Your task to perform on an android device: toggle show notifications on the lock screen Image 0: 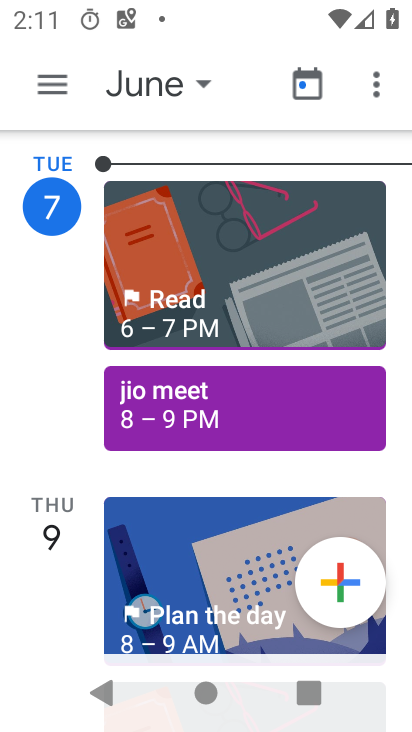
Step 0: press home button
Your task to perform on an android device: toggle show notifications on the lock screen Image 1: 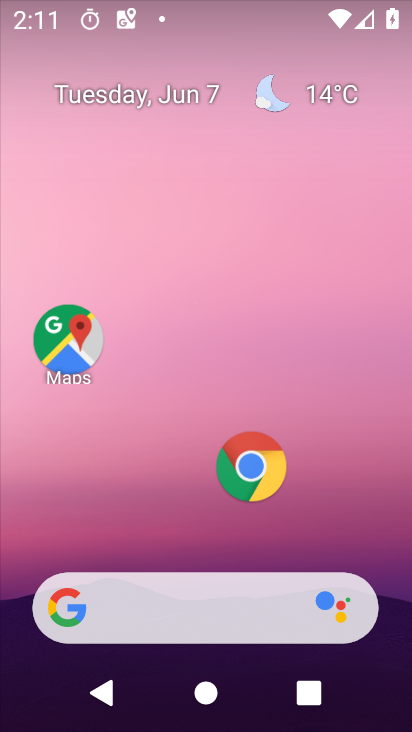
Step 1: drag from (155, 726) to (109, 81)
Your task to perform on an android device: toggle show notifications on the lock screen Image 2: 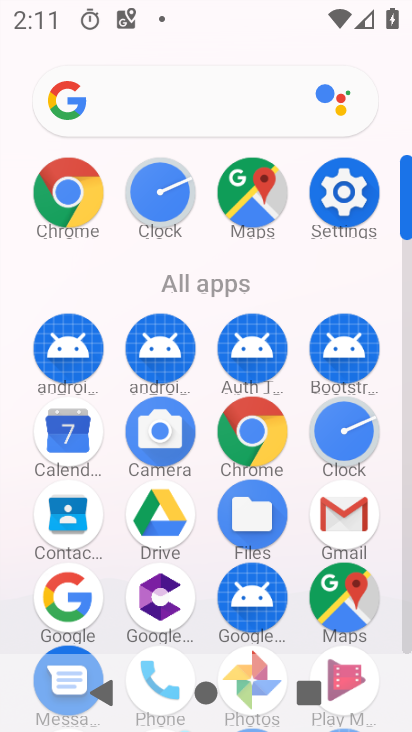
Step 2: click (339, 210)
Your task to perform on an android device: toggle show notifications on the lock screen Image 3: 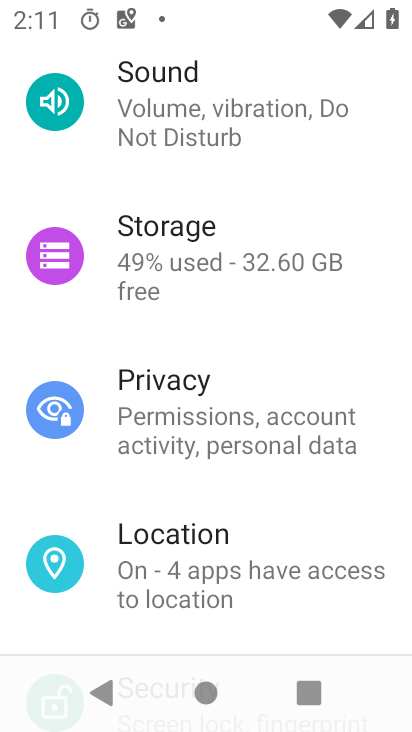
Step 3: drag from (279, 242) to (297, 565)
Your task to perform on an android device: toggle show notifications on the lock screen Image 4: 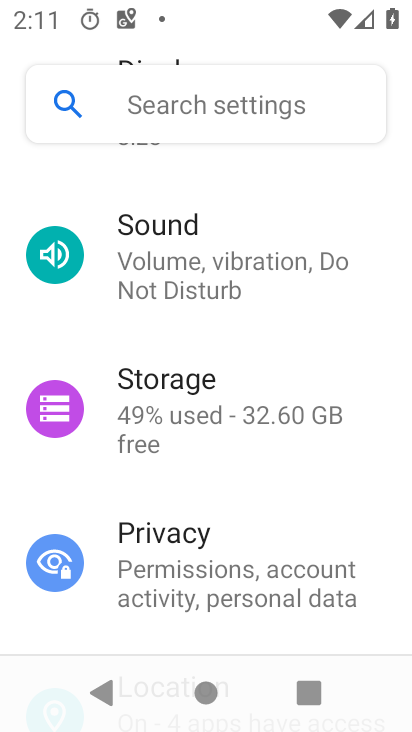
Step 4: drag from (269, 209) to (244, 578)
Your task to perform on an android device: toggle show notifications on the lock screen Image 5: 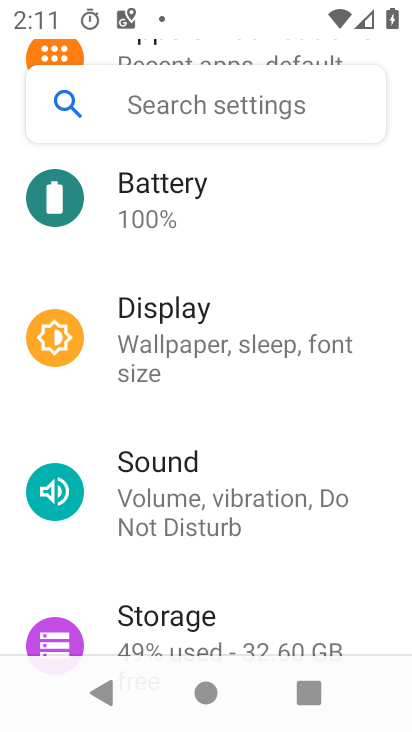
Step 5: drag from (283, 238) to (312, 649)
Your task to perform on an android device: toggle show notifications on the lock screen Image 6: 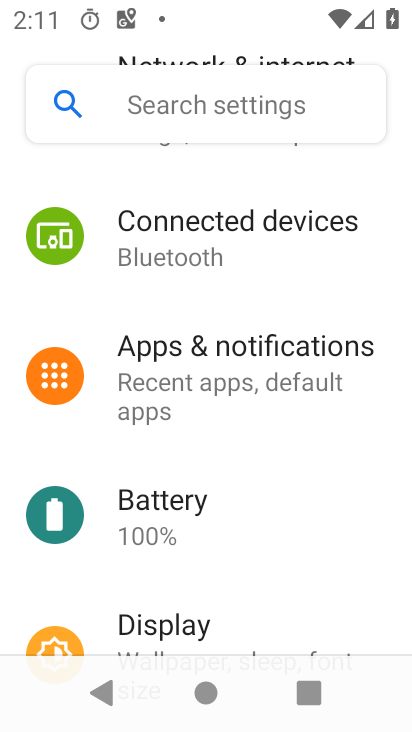
Step 6: click (269, 371)
Your task to perform on an android device: toggle show notifications on the lock screen Image 7: 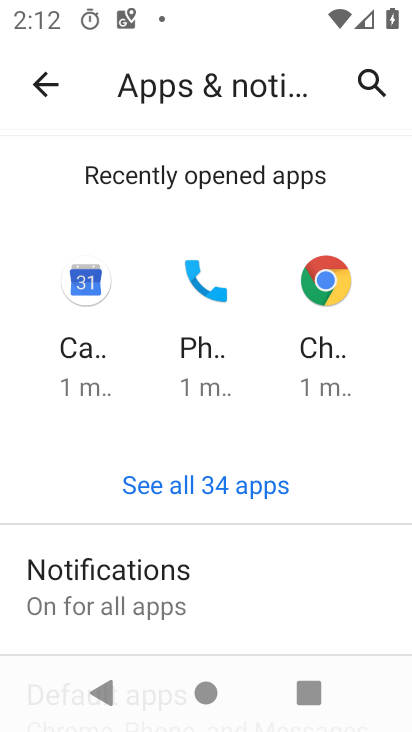
Step 7: click (212, 599)
Your task to perform on an android device: toggle show notifications on the lock screen Image 8: 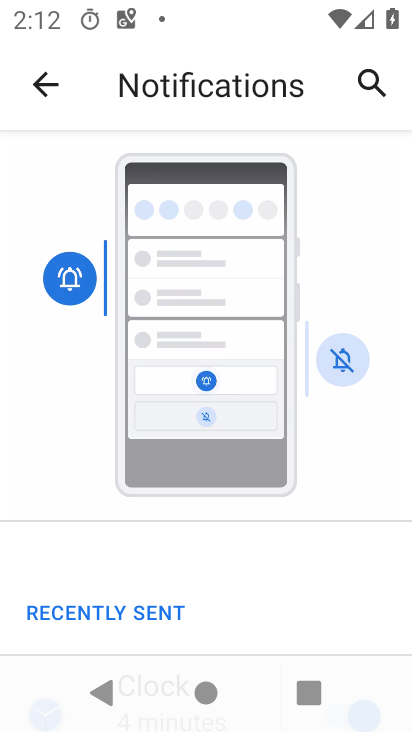
Step 8: drag from (239, 599) to (212, 128)
Your task to perform on an android device: toggle show notifications on the lock screen Image 9: 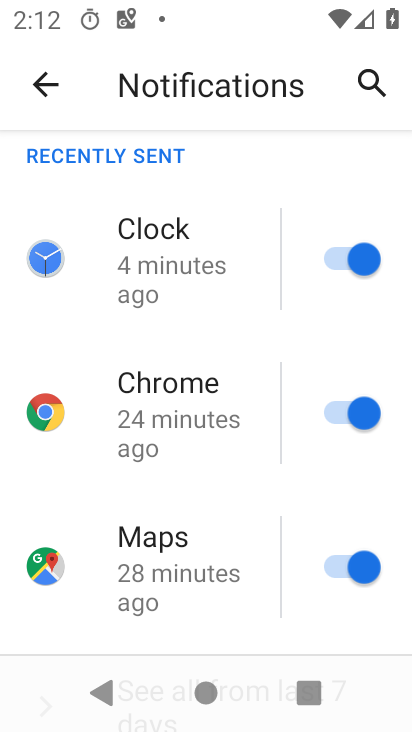
Step 9: drag from (228, 590) to (239, 111)
Your task to perform on an android device: toggle show notifications on the lock screen Image 10: 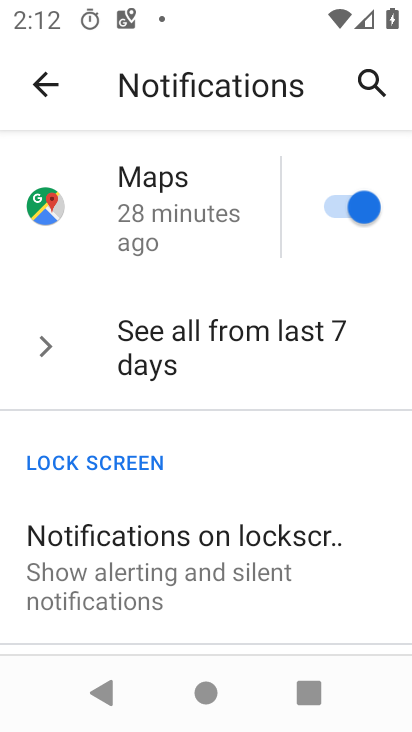
Step 10: click (258, 578)
Your task to perform on an android device: toggle show notifications on the lock screen Image 11: 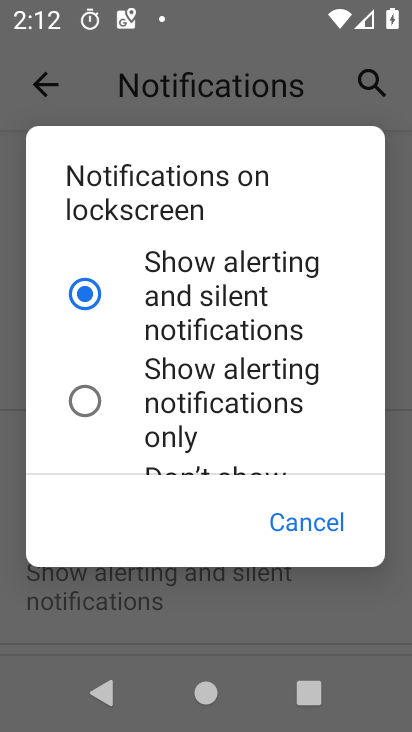
Step 11: task complete